Your task to perform on an android device: set the stopwatch Image 0: 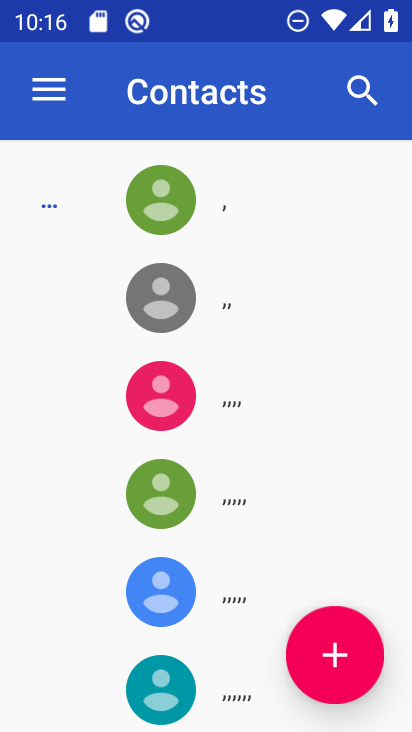
Step 0: press home button
Your task to perform on an android device: set the stopwatch Image 1: 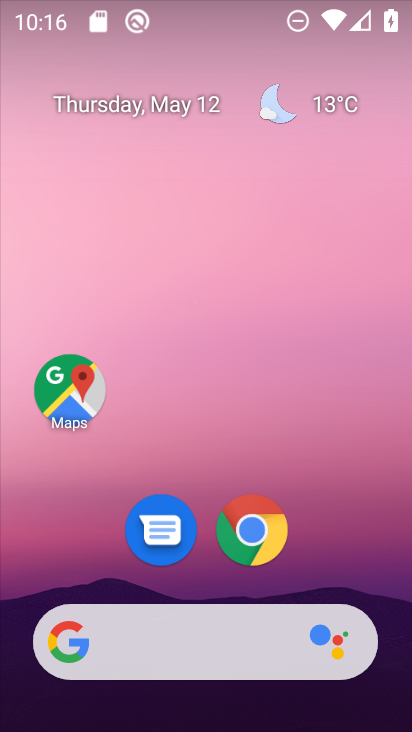
Step 1: drag from (320, 525) to (297, 76)
Your task to perform on an android device: set the stopwatch Image 2: 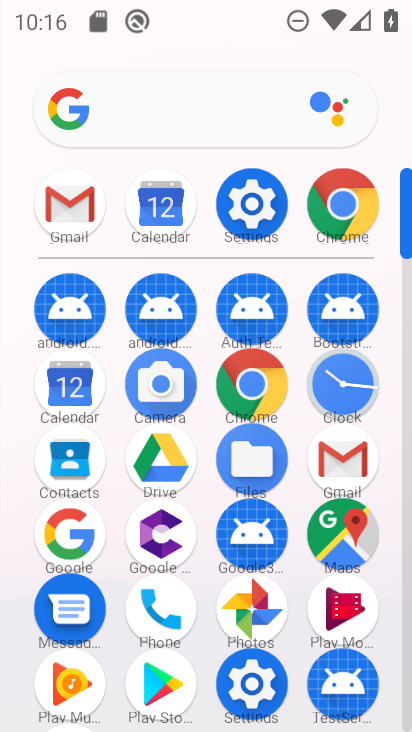
Step 2: click (348, 387)
Your task to perform on an android device: set the stopwatch Image 3: 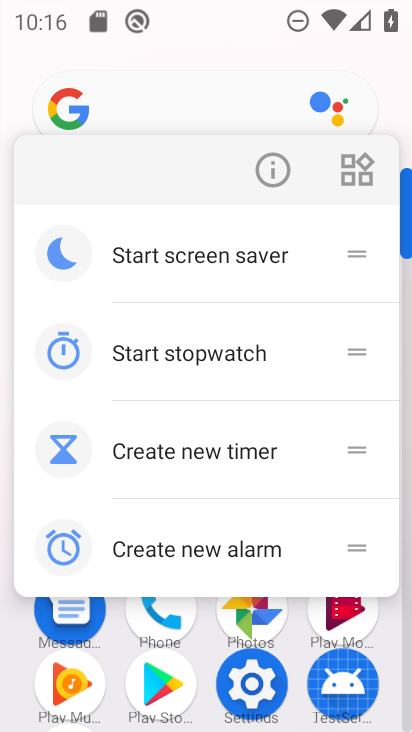
Step 3: click (202, 352)
Your task to perform on an android device: set the stopwatch Image 4: 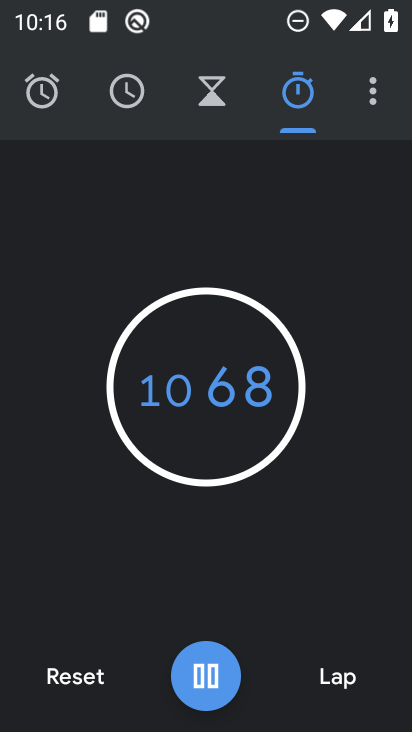
Step 4: task complete